Your task to perform on an android device: Find coffee shops on Maps Image 0: 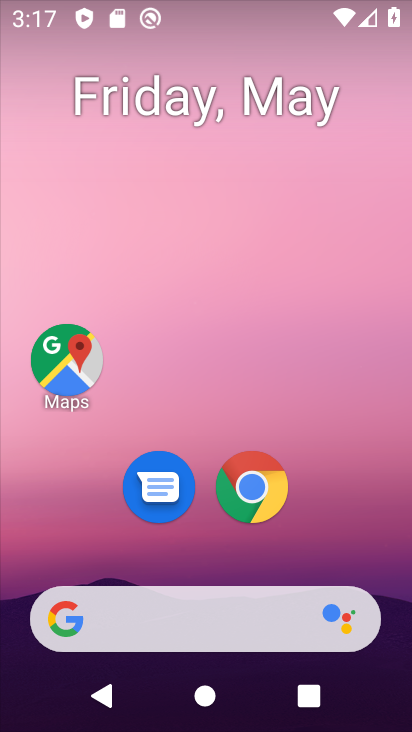
Step 0: drag from (399, 616) to (254, 21)
Your task to perform on an android device: Find coffee shops on Maps Image 1: 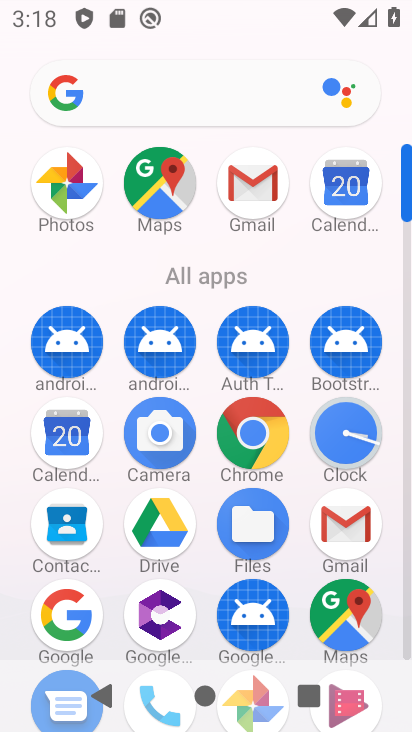
Step 1: click (170, 207)
Your task to perform on an android device: Find coffee shops on Maps Image 2: 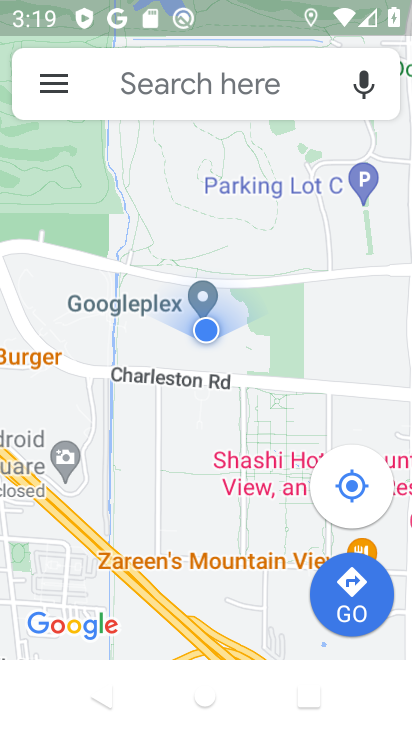
Step 2: click (155, 79)
Your task to perform on an android device: Find coffee shops on Maps Image 3: 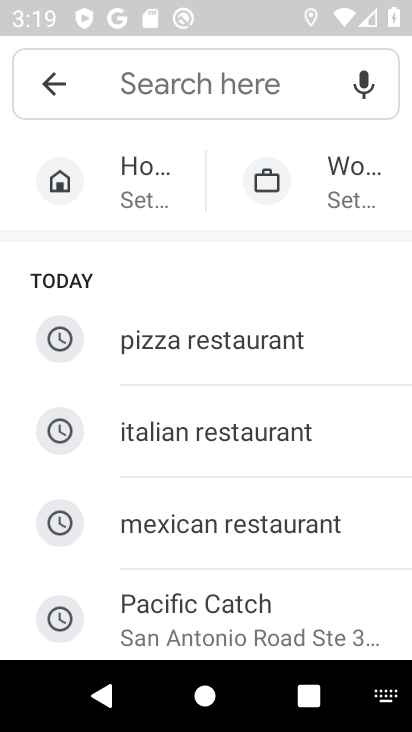
Step 3: drag from (136, 596) to (205, 204)
Your task to perform on an android device: Find coffee shops on Maps Image 4: 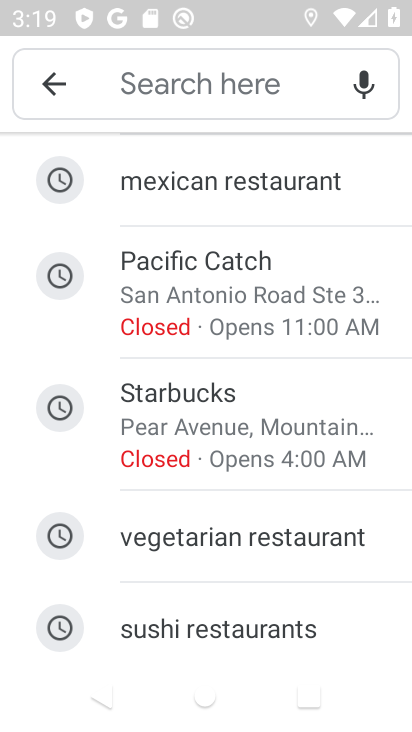
Step 4: drag from (183, 580) to (266, 243)
Your task to perform on an android device: Find coffee shops on Maps Image 5: 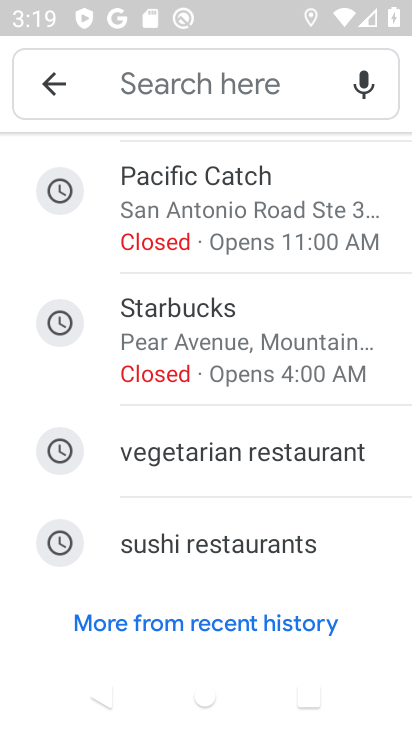
Step 5: click (189, 79)
Your task to perform on an android device: Find coffee shops on Maps Image 6: 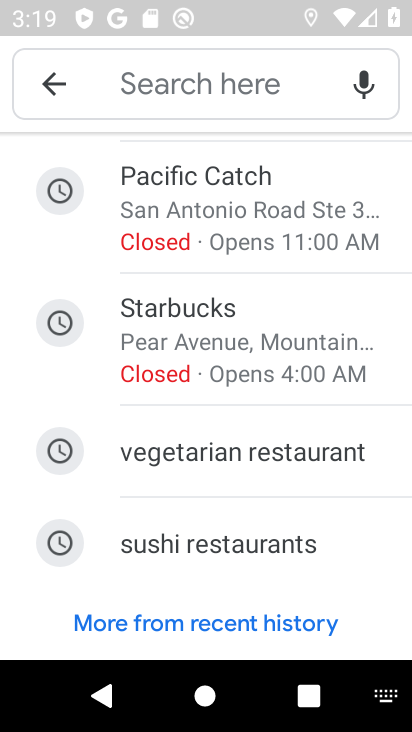
Step 6: type "coffe"
Your task to perform on an android device: Find coffee shops on Maps Image 7: 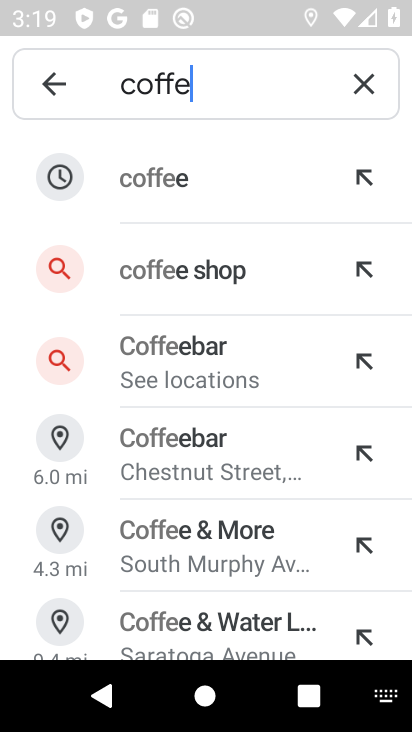
Step 7: click (217, 208)
Your task to perform on an android device: Find coffee shops on Maps Image 8: 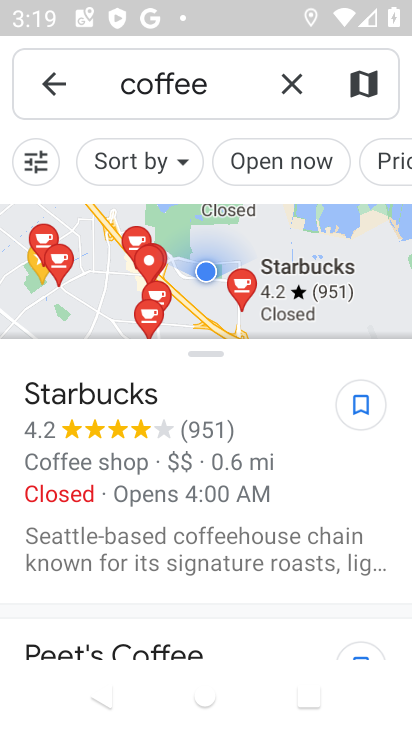
Step 8: task complete